Your task to perform on an android device: Search for bose soundlink on newegg.com, select the first entry, add it to the cart, then select checkout. Image 0: 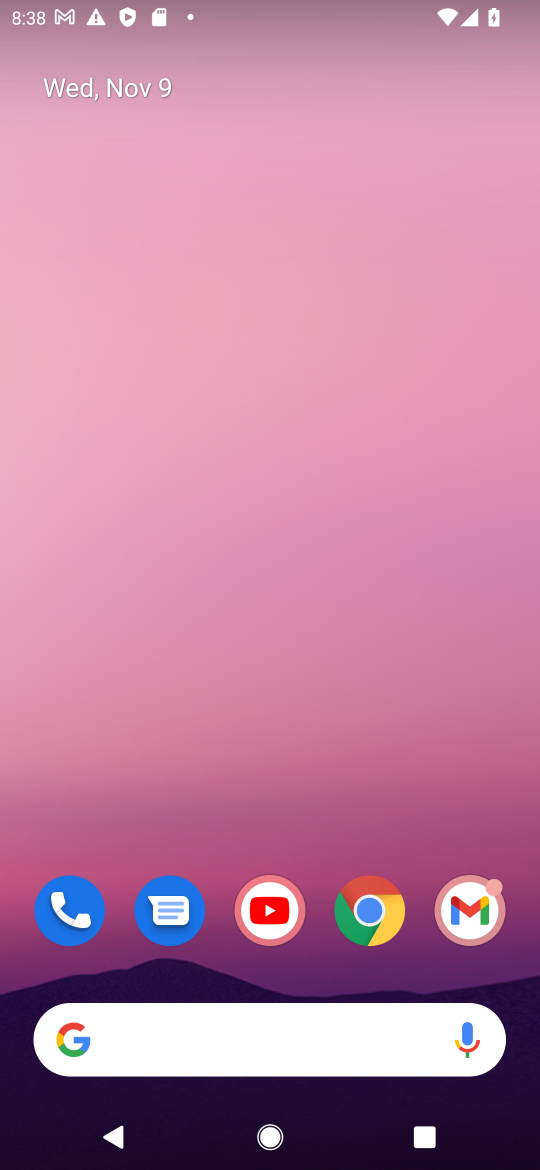
Step 0: click (370, 910)
Your task to perform on an android device: Search for bose soundlink on newegg.com, select the first entry, add it to the cart, then select checkout. Image 1: 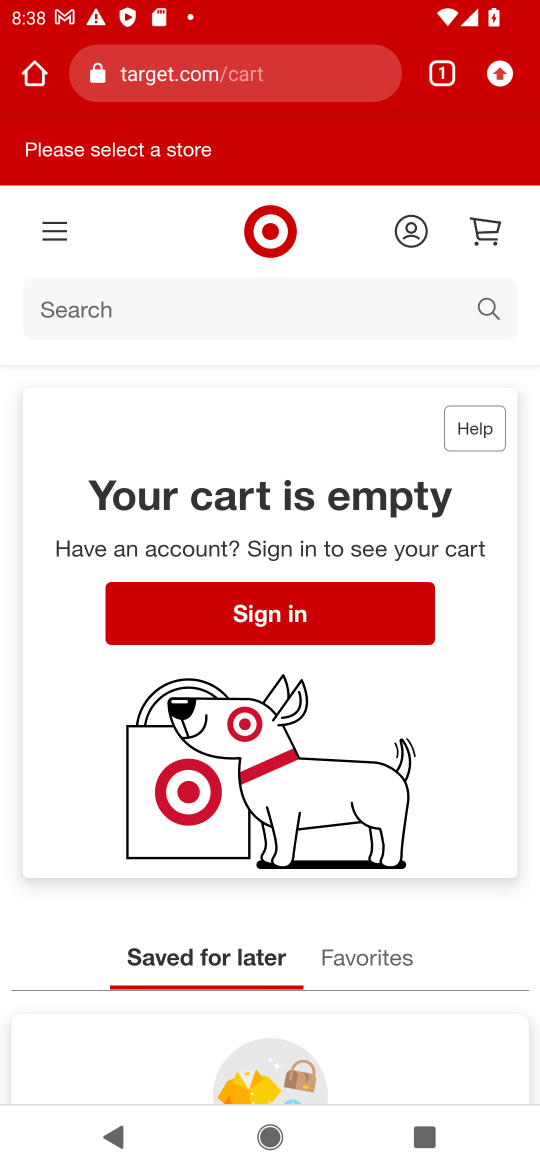
Step 1: click (141, 70)
Your task to perform on an android device: Search for bose soundlink on newegg.com, select the first entry, add it to the cart, then select checkout. Image 2: 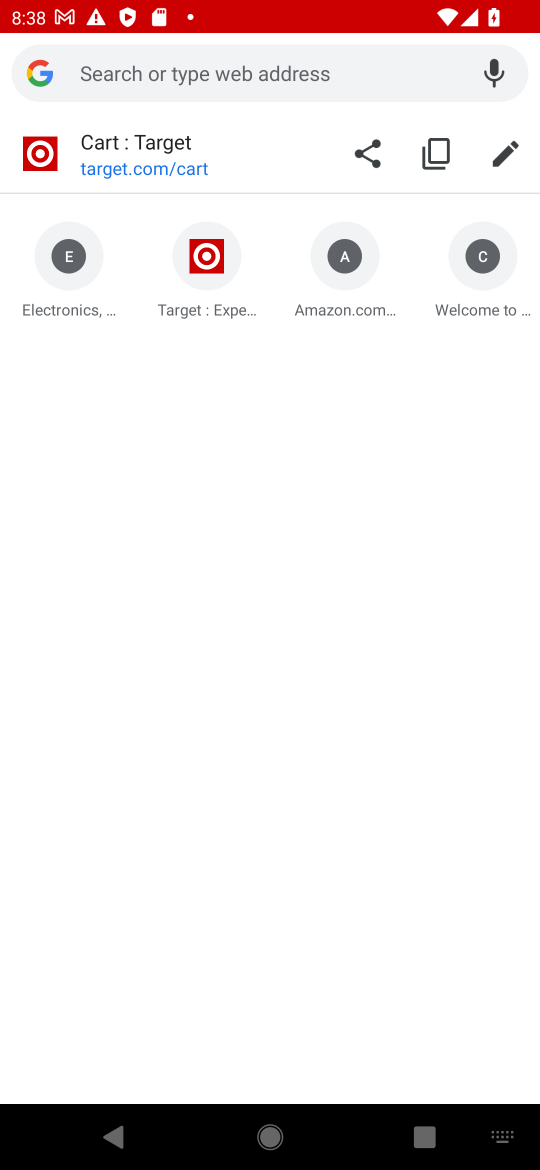
Step 2: type "newegg.com"
Your task to perform on an android device: Search for bose soundlink on newegg.com, select the first entry, add it to the cart, then select checkout. Image 3: 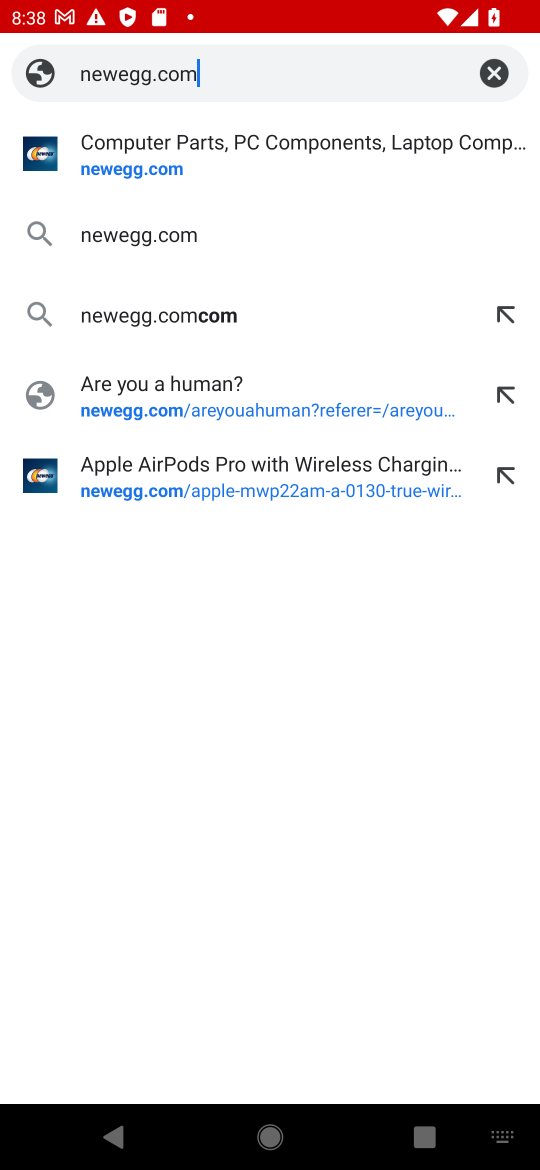
Step 3: click (95, 169)
Your task to perform on an android device: Search for bose soundlink on newegg.com, select the first entry, add it to the cart, then select checkout. Image 4: 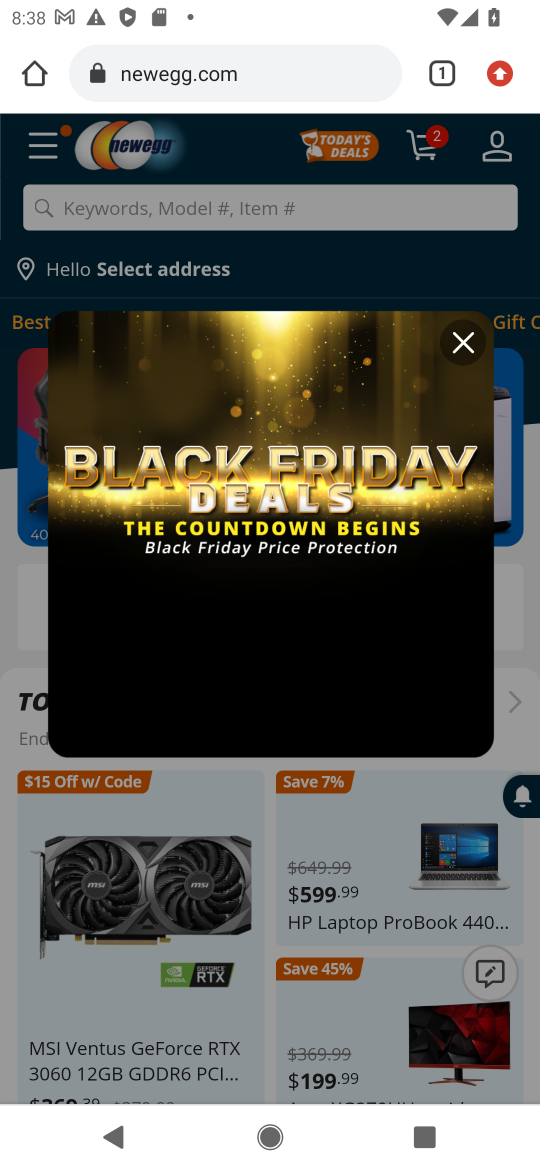
Step 4: click (468, 345)
Your task to perform on an android device: Search for bose soundlink on newegg.com, select the first entry, add it to the cart, then select checkout. Image 5: 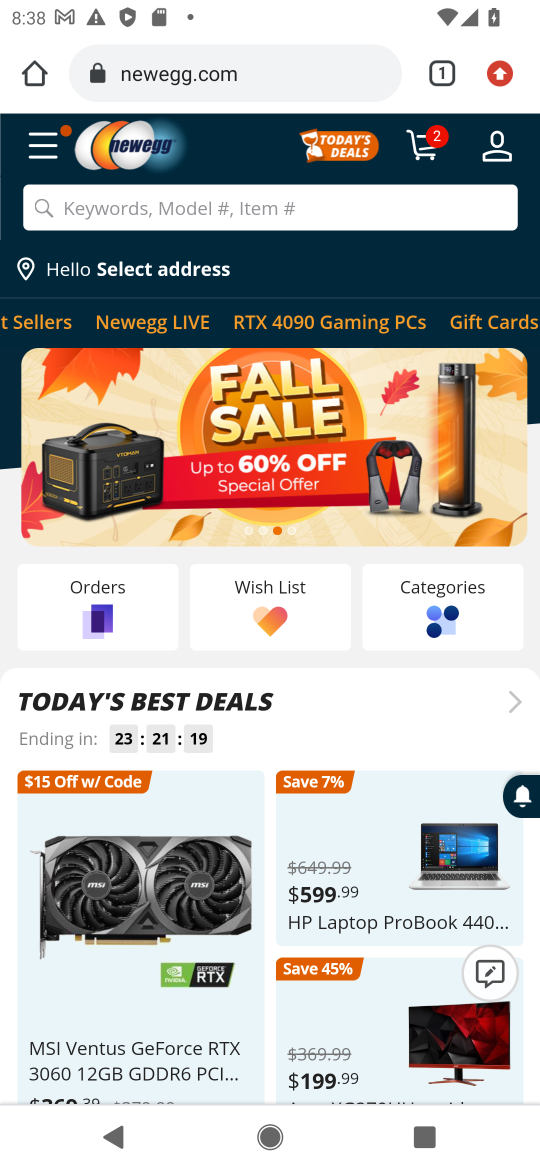
Step 5: click (260, 216)
Your task to perform on an android device: Search for bose soundlink on newegg.com, select the first entry, add it to the cart, then select checkout. Image 6: 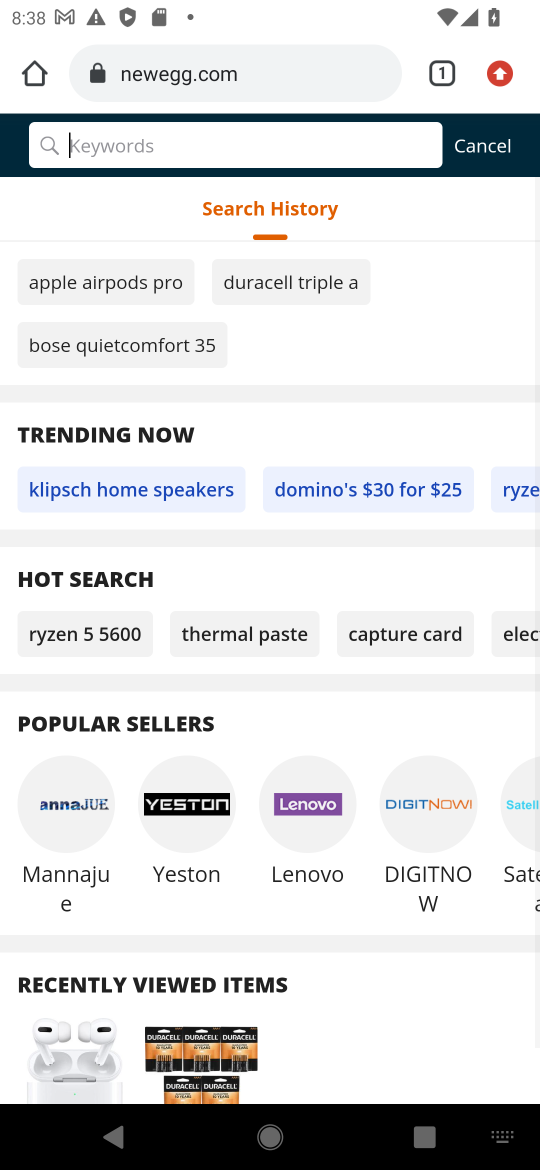
Step 6: type "bose soundlink "
Your task to perform on an android device: Search for bose soundlink on newegg.com, select the first entry, add it to the cart, then select checkout. Image 7: 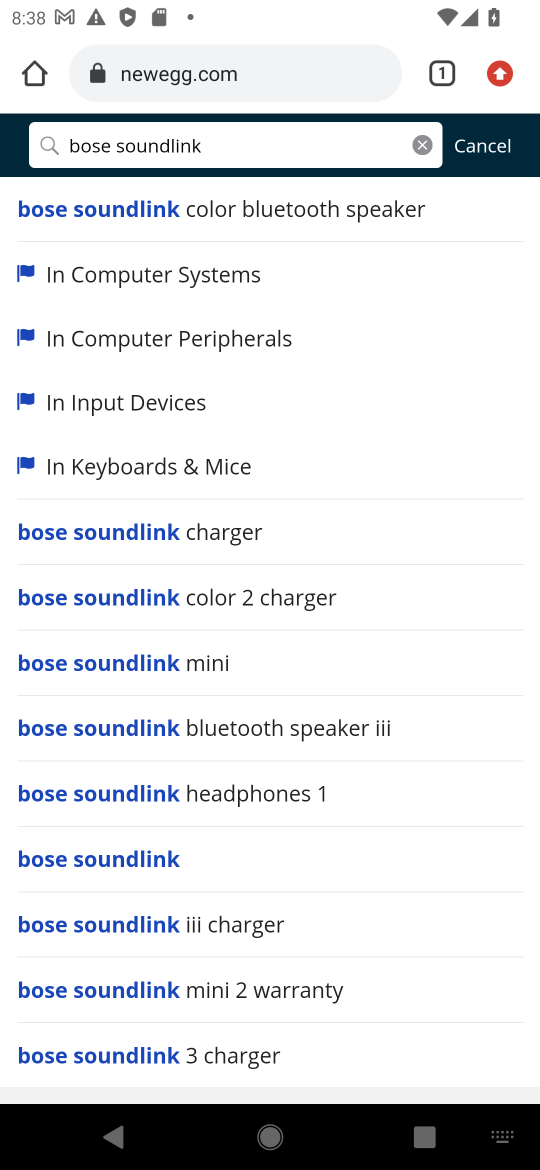
Step 7: click (109, 851)
Your task to perform on an android device: Search for bose soundlink on newegg.com, select the first entry, add it to the cart, then select checkout. Image 8: 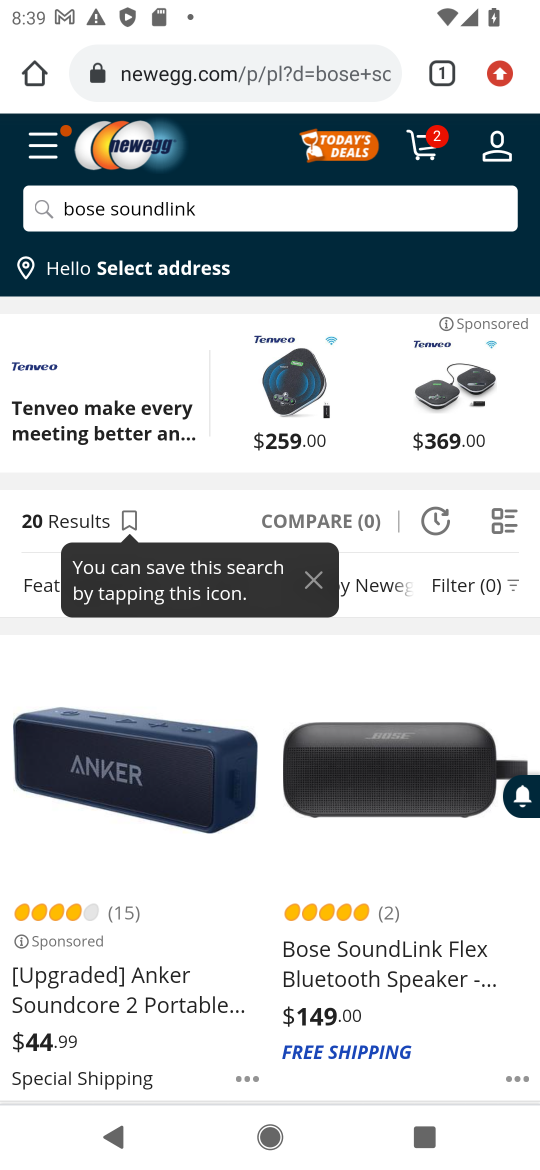
Step 8: task complete